Your task to perform on an android device: Open my contact list Image 0: 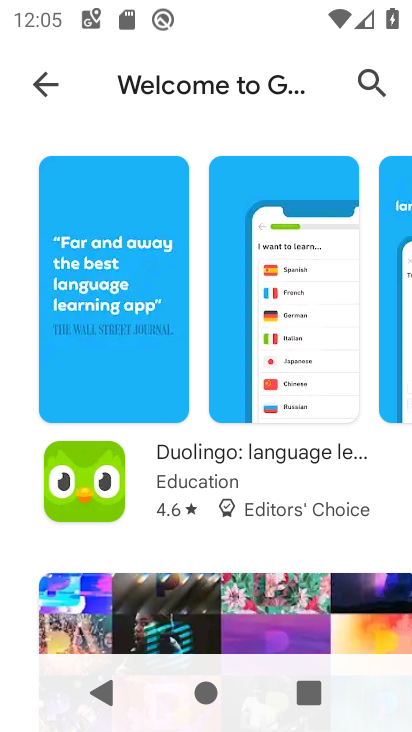
Step 0: press home button
Your task to perform on an android device: Open my contact list Image 1: 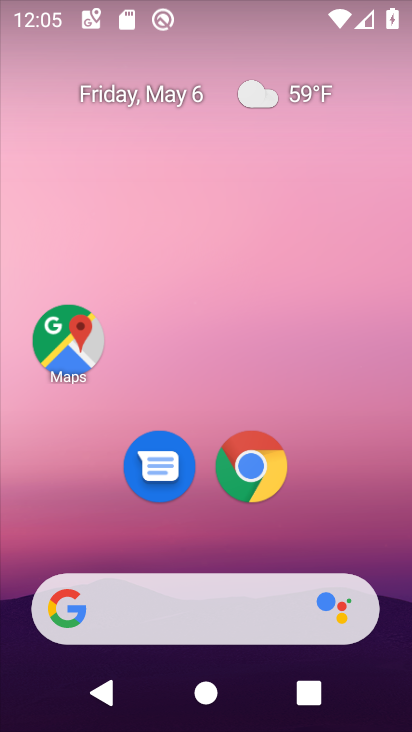
Step 1: drag from (366, 538) to (312, 47)
Your task to perform on an android device: Open my contact list Image 2: 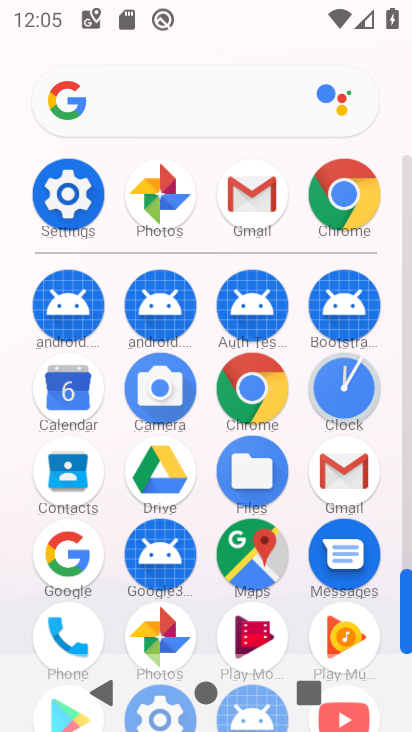
Step 2: click (71, 477)
Your task to perform on an android device: Open my contact list Image 3: 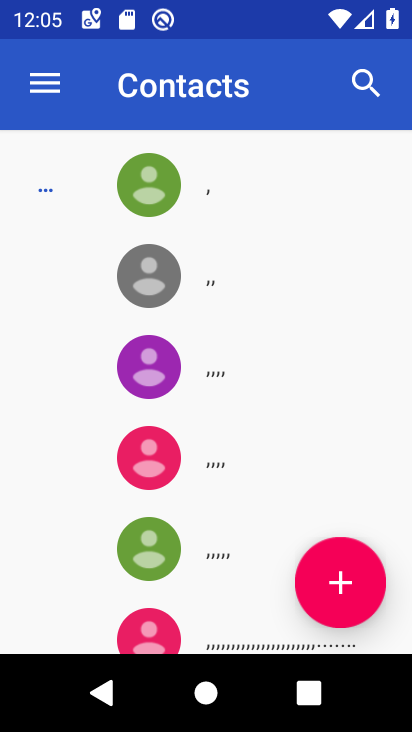
Step 3: task complete